Your task to perform on an android device: toggle show notifications on the lock screen Image 0: 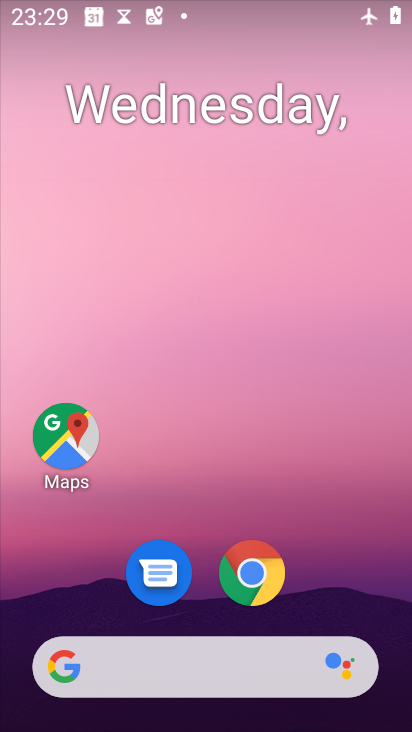
Step 0: drag from (305, 523) to (283, 252)
Your task to perform on an android device: toggle show notifications on the lock screen Image 1: 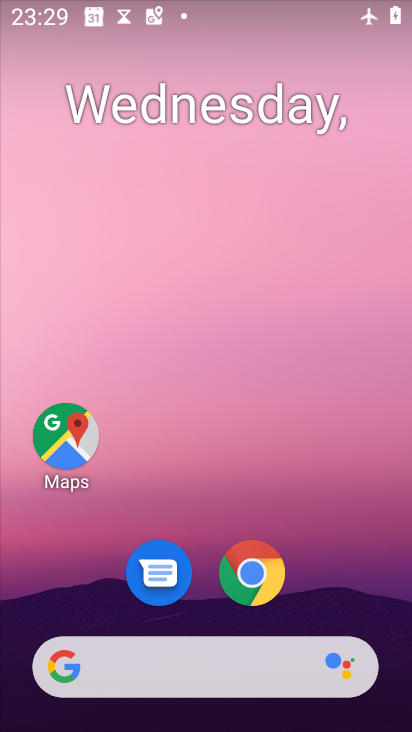
Step 1: drag from (329, 575) to (290, 237)
Your task to perform on an android device: toggle show notifications on the lock screen Image 2: 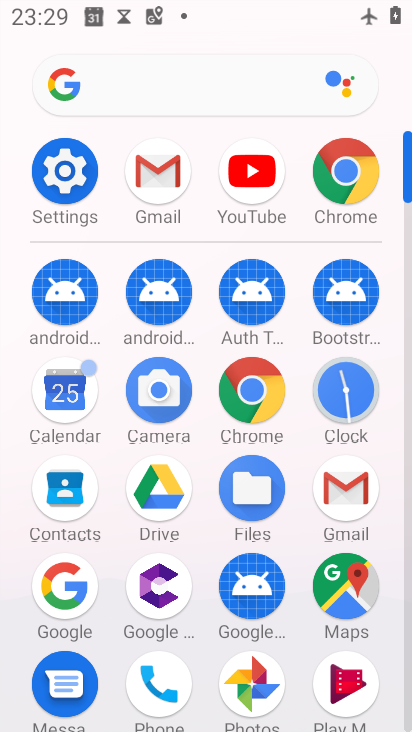
Step 2: click (78, 169)
Your task to perform on an android device: toggle show notifications on the lock screen Image 3: 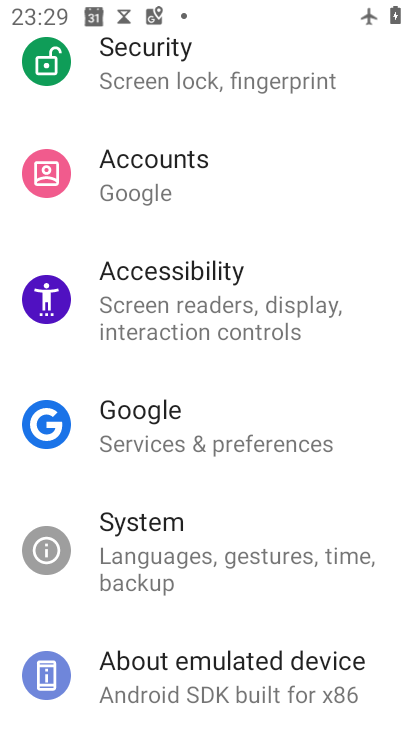
Step 3: drag from (226, 146) to (239, 550)
Your task to perform on an android device: toggle show notifications on the lock screen Image 4: 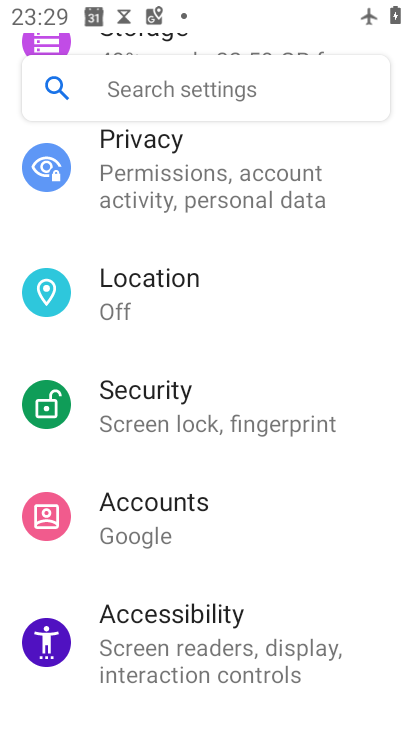
Step 4: drag from (192, 200) to (183, 560)
Your task to perform on an android device: toggle show notifications on the lock screen Image 5: 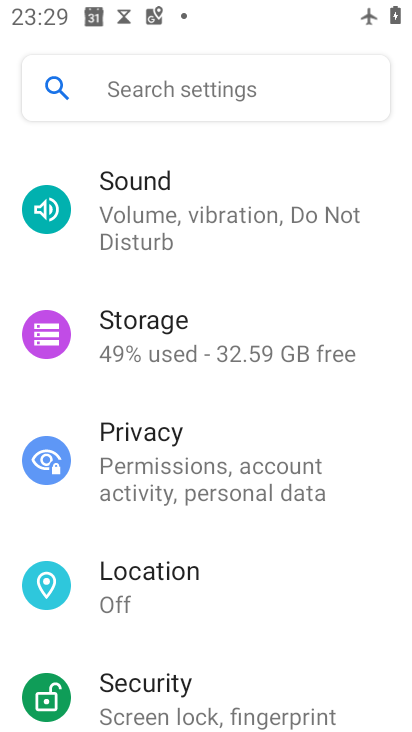
Step 5: drag from (152, 165) to (170, 541)
Your task to perform on an android device: toggle show notifications on the lock screen Image 6: 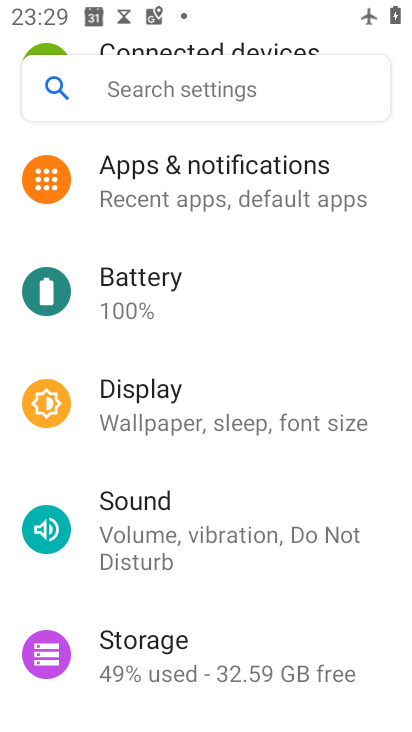
Step 6: click (175, 162)
Your task to perform on an android device: toggle show notifications on the lock screen Image 7: 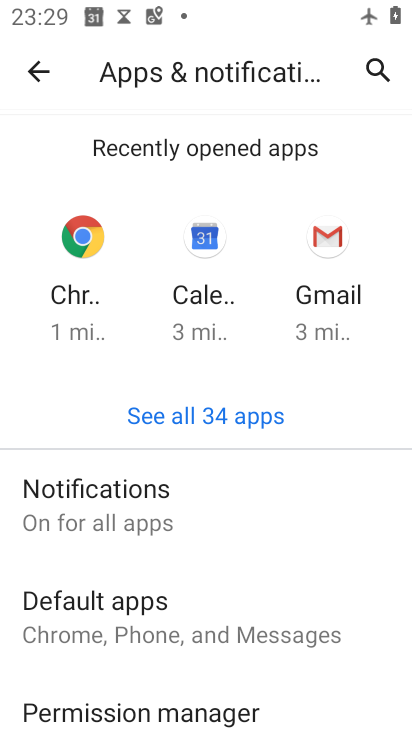
Step 7: click (163, 500)
Your task to perform on an android device: toggle show notifications on the lock screen Image 8: 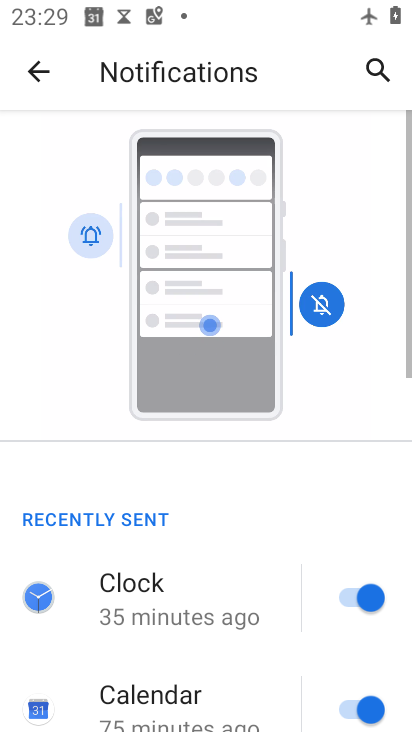
Step 8: drag from (241, 569) to (237, 132)
Your task to perform on an android device: toggle show notifications on the lock screen Image 9: 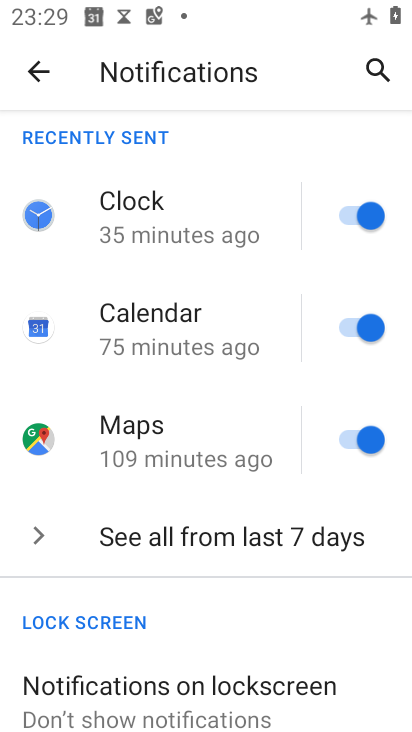
Step 9: drag from (173, 647) to (203, 379)
Your task to perform on an android device: toggle show notifications on the lock screen Image 10: 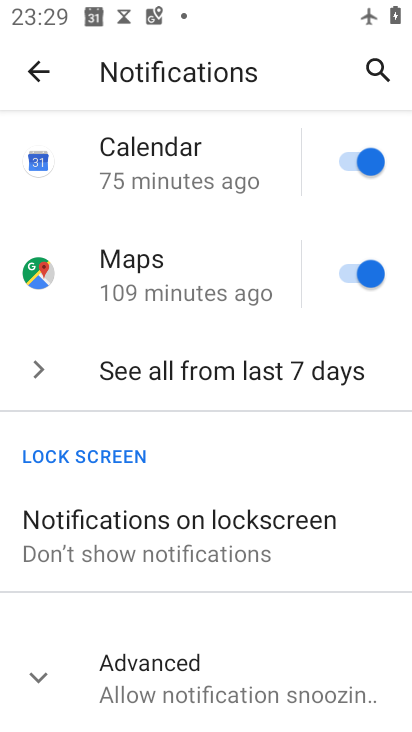
Step 10: click (149, 530)
Your task to perform on an android device: toggle show notifications on the lock screen Image 11: 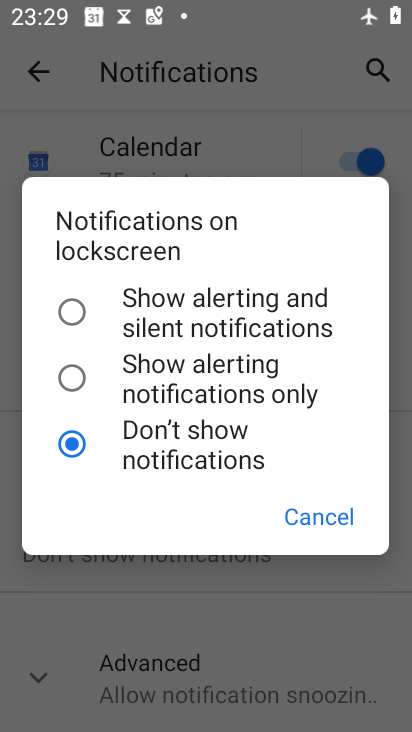
Step 11: click (136, 370)
Your task to perform on an android device: toggle show notifications on the lock screen Image 12: 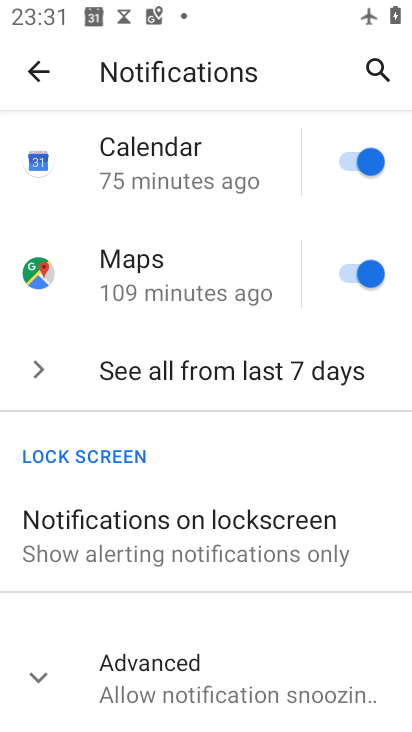
Step 12: task complete